Your task to perform on an android device: Open ESPN.com Image 0: 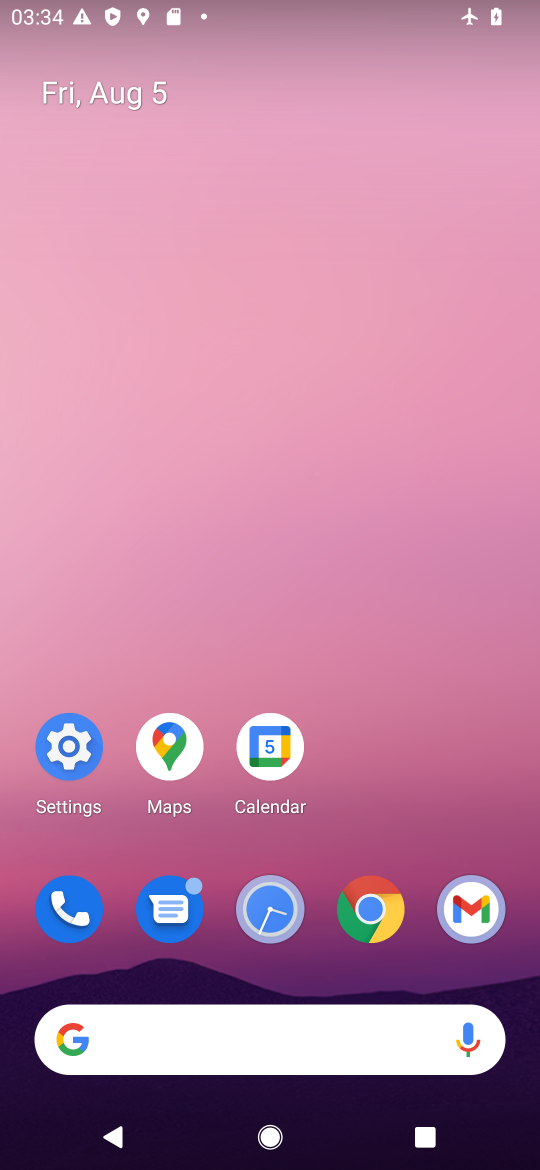
Step 0: click (370, 904)
Your task to perform on an android device: Open ESPN.com Image 1: 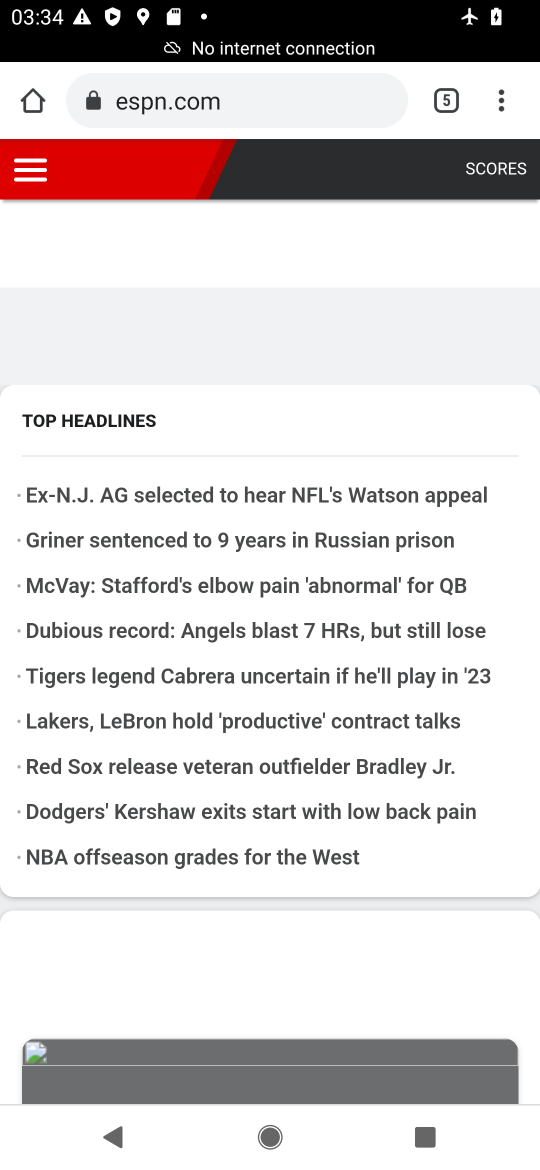
Step 1: task complete